Your task to perform on an android device: check data usage Image 0: 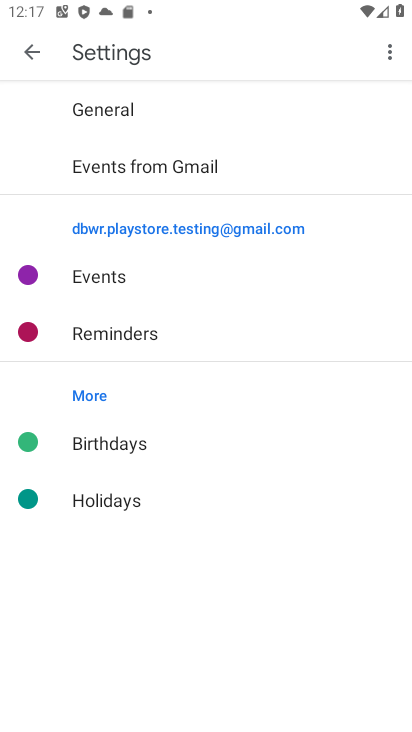
Step 0: task complete